Your task to perform on an android device: change alarm snooze length Image 0: 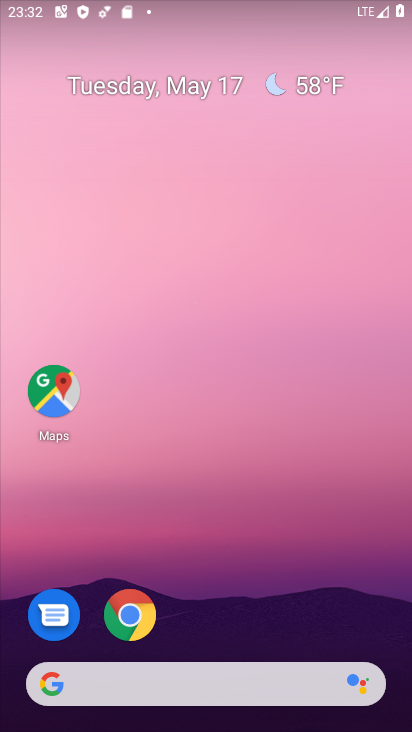
Step 0: drag from (227, 640) to (253, 138)
Your task to perform on an android device: change alarm snooze length Image 1: 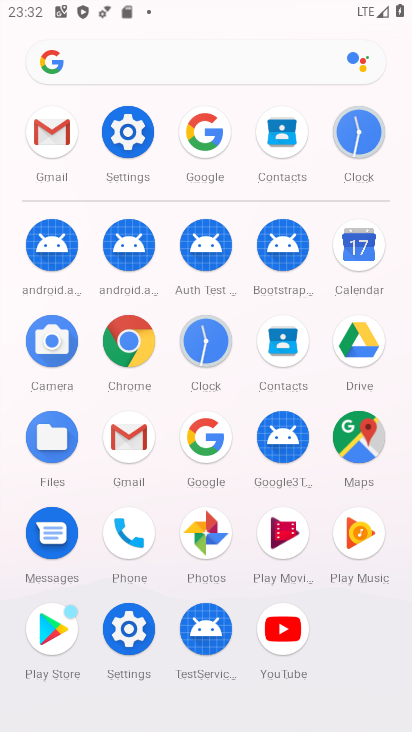
Step 1: click (376, 136)
Your task to perform on an android device: change alarm snooze length Image 2: 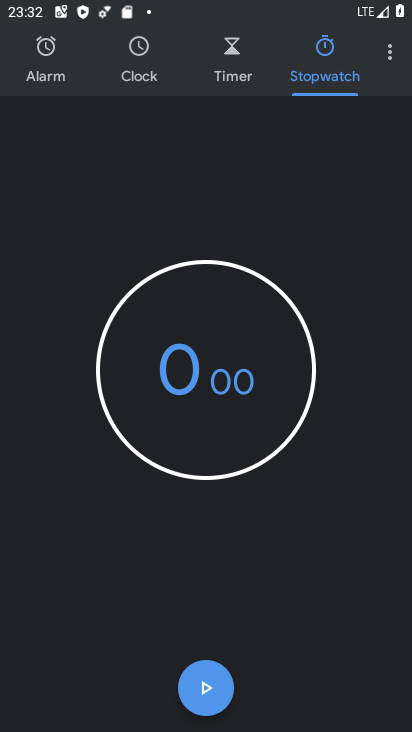
Step 2: click (384, 51)
Your task to perform on an android device: change alarm snooze length Image 3: 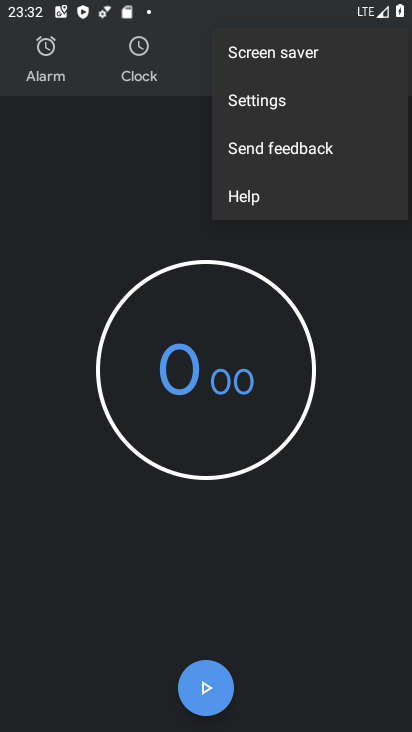
Step 3: click (299, 103)
Your task to perform on an android device: change alarm snooze length Image 4: 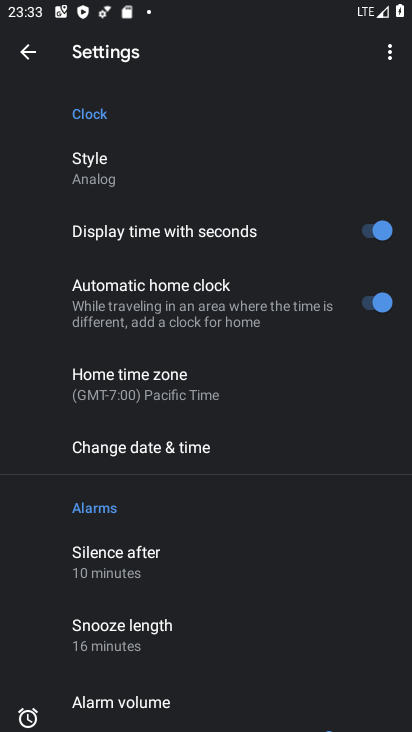
Step 4: click (182, 637)
Your task to perform on an android device: change alarm snooze length Image 5: 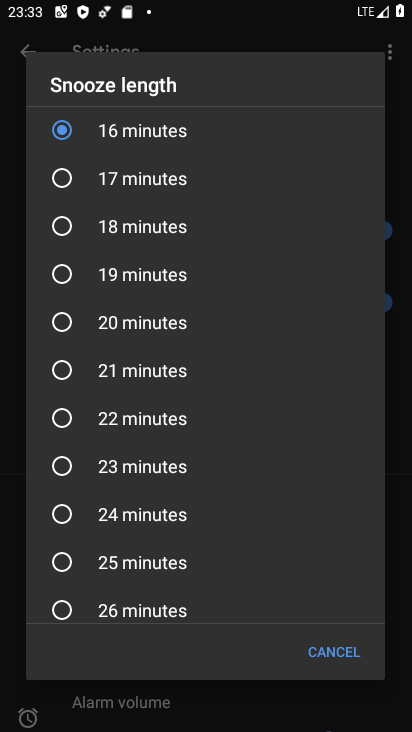
Step 5: click (140, 406)
Your task to perform on an android device: change alarm snooze length Image 6: 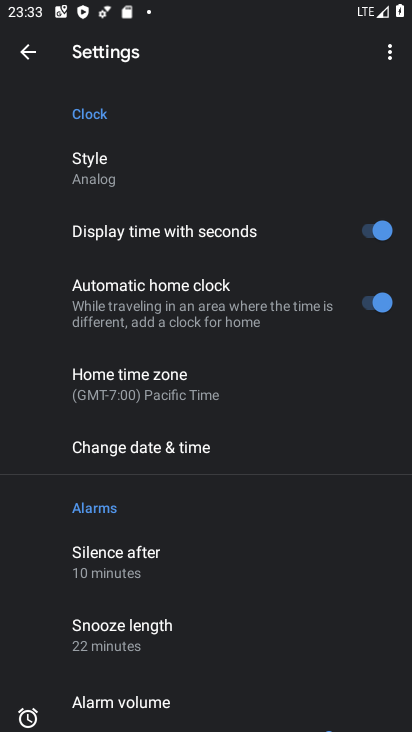
Step 6: task complete